Your task to perform on an android device: Search for pizza restaurants on Maps Image 0: 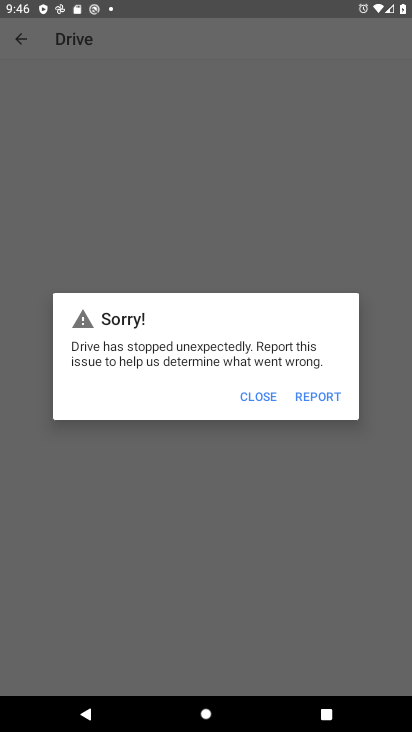
Step 0: press back button
Your task to perform on an android device: Search for pizza restaurants on Maps Image 1: 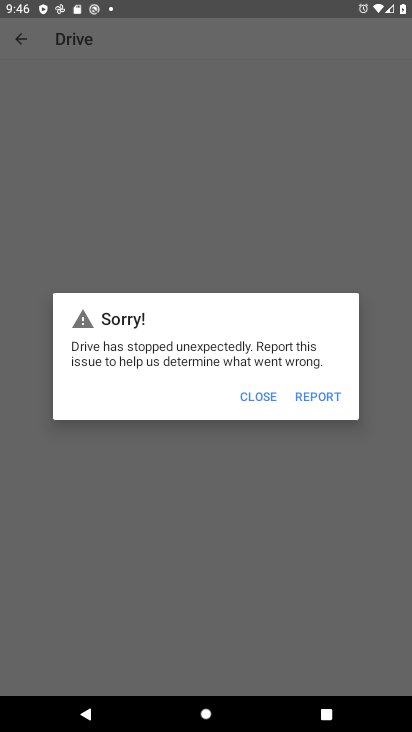
Step 1: press home button
Your task to perform on an android device: Search for pizza restaurants on Maps Image 2: 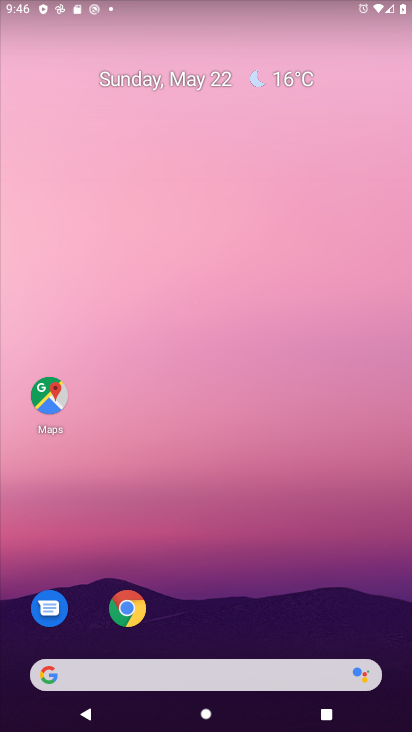
Step 2: click (48, 391)
Your task to perform on an android device: Search for pizza restaurants on Maps Image 3: 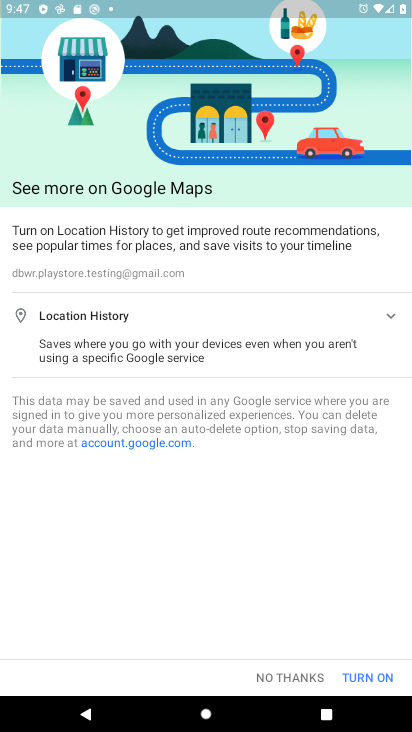
Step 3: click (380, 670)
Your task to perform on an android device: Search for pizza restaurants on Maps Image 4: 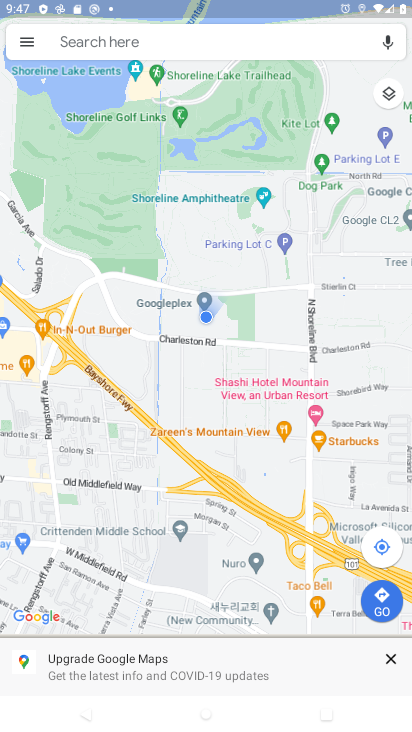
Step 4: click (139, 42)
Your task to perform on an android device: Search for pizza restaurants on Maps Image 5: 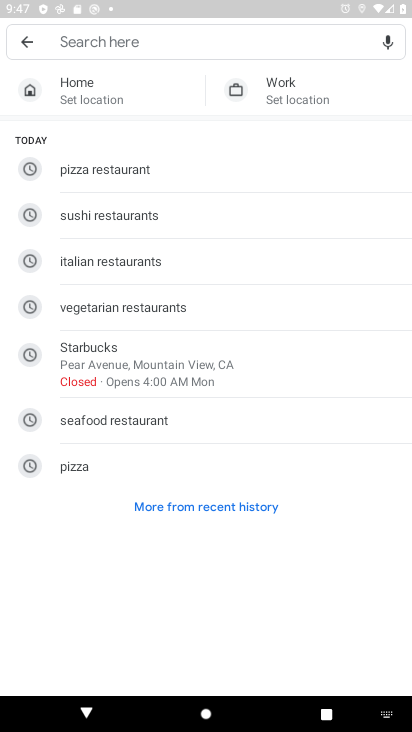
Step 5: click (131, 170)
Your task to perform on an android device: Search for pizza restaurants on Maps Image 6: 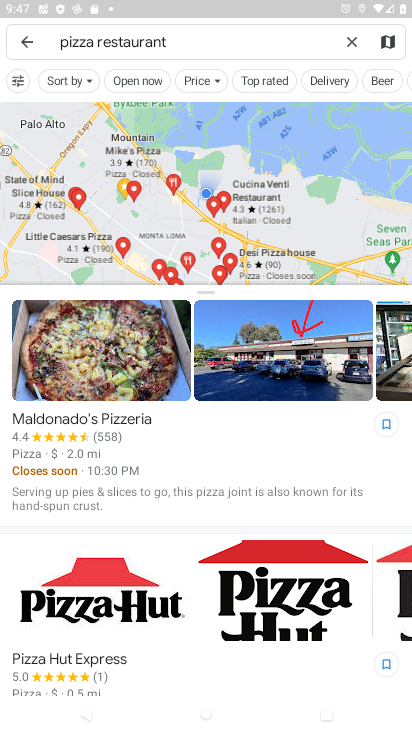
Step 6: task complete